Your task to perform on an android device: Do I have any events this weekend? Image 0: 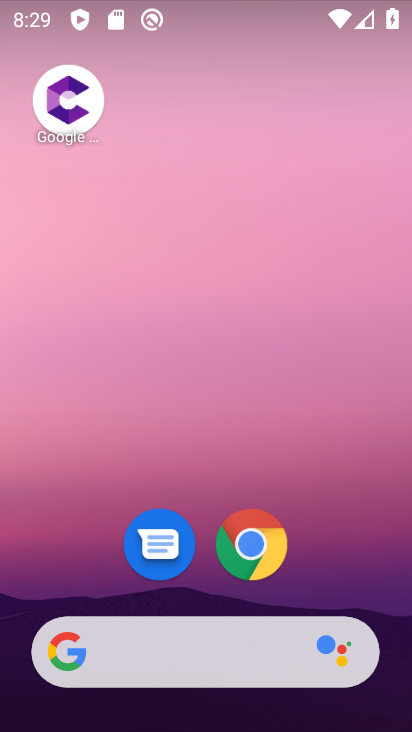
Step 0: drag from (307, 569) to (280, 21)
Your task to perform on an android device: Do I have any events this weekend? Image 1: 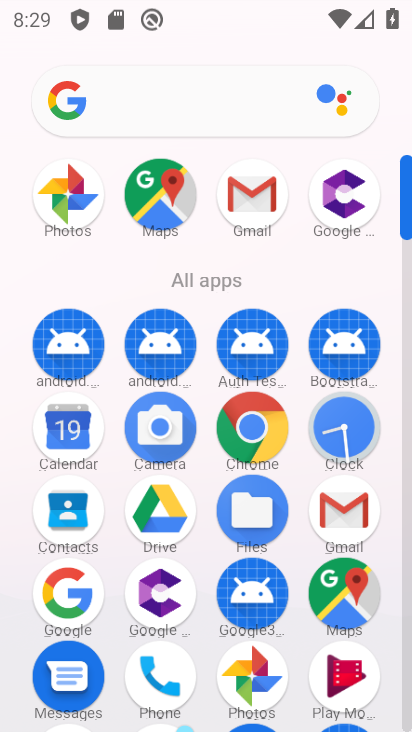
Step 1: click (68, 413)
Your task to perform on an android device: Do I have any events this weekend? Image 2: 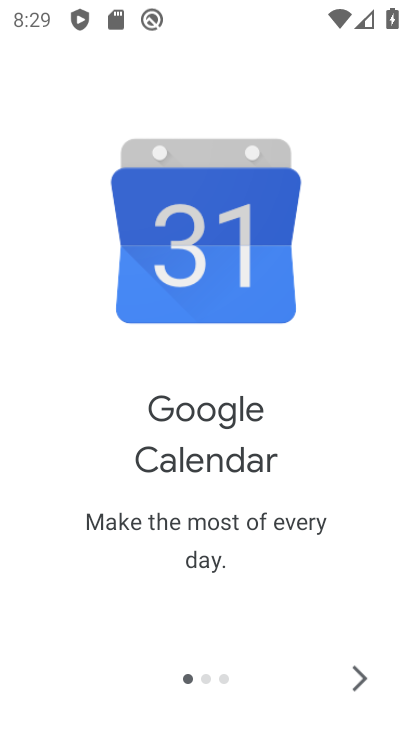
Step 2: click (364, 671)
Your task to perform on an android device: Do I have any events this weekend? Image 3: 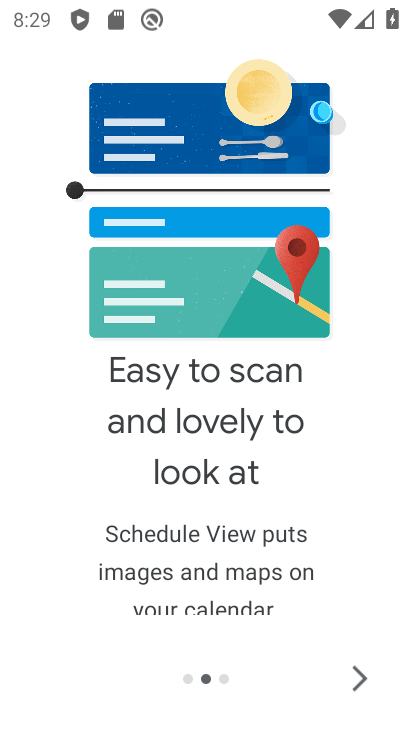
Step 3: click (345, 688)
Your task to perform on an android device: Do I have any events this weekend? Image 4: 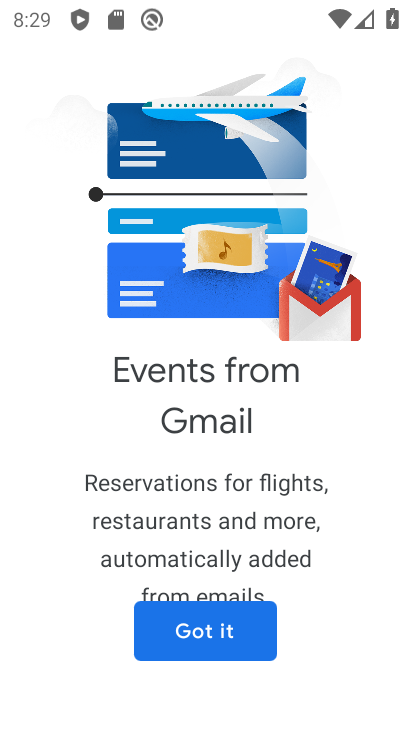
Step 4: click (229, 638)
Your task to perform on an android device: Do I have any events this weekend? Image 5: 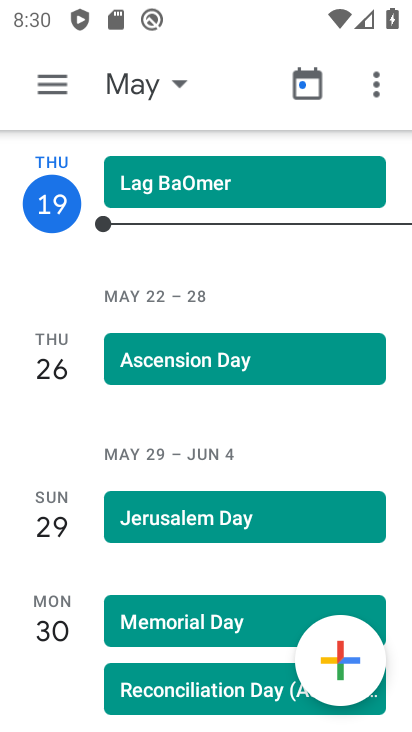
Step 5: click (161, 82)
Your task to perform on an android device: Do I have any events this weekend? Image 6: 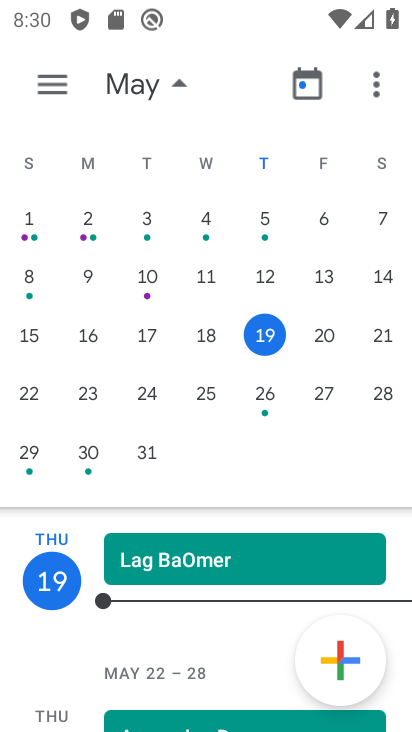
Step 6: click (372, 329)
Your task to perform on an android device: Do I have any events this weekend? Image 7: 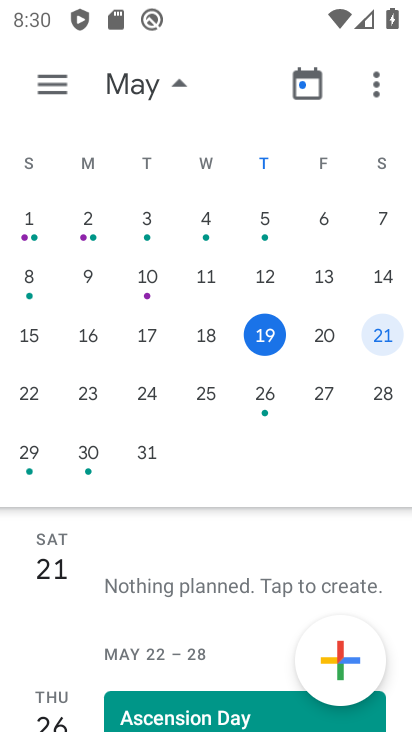
Step 7: task complete